Your task to perform on an android device: Open eBay Image 0: 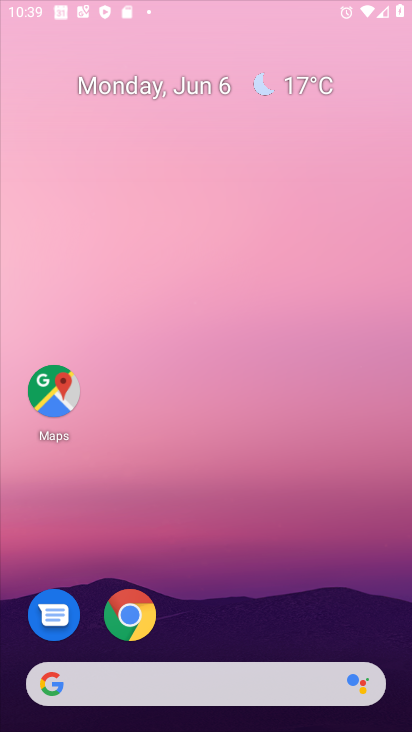
Step 0: press home button
Your task to perform on an android device: Open eBay Image 1: 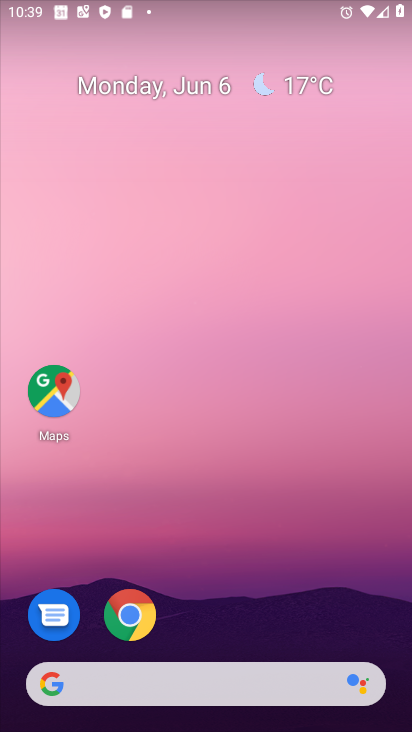
Step 1: press home button
Your task to perform on an android device: Open eBay Image 2: 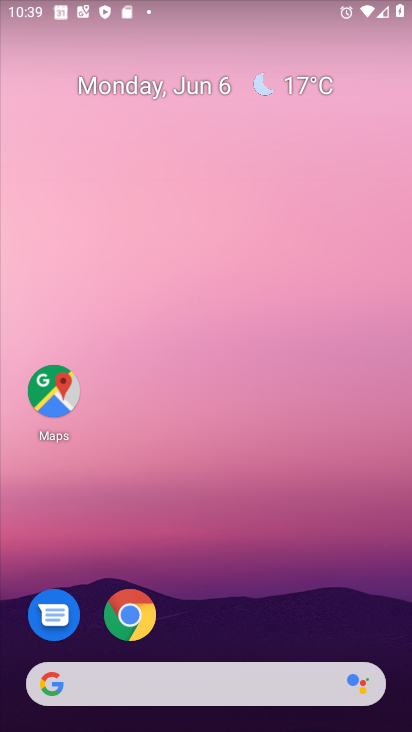
Step 2: click (126, 610)
Your task to perform on an android device: Open eBay Image 3: 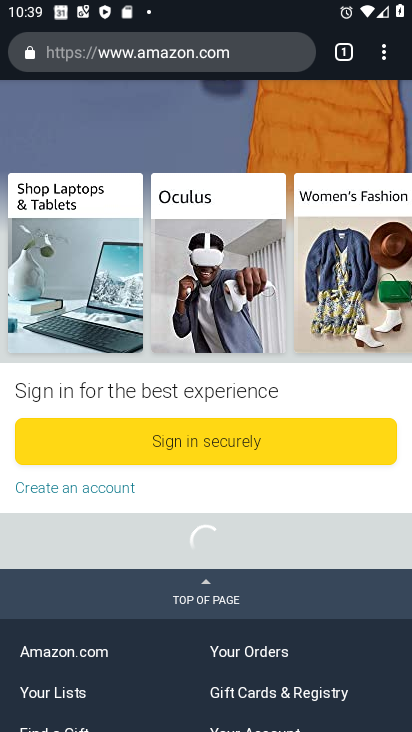
Step 3: click (339, 48)
Your task to perform on an android device: Open eBay Image 4: 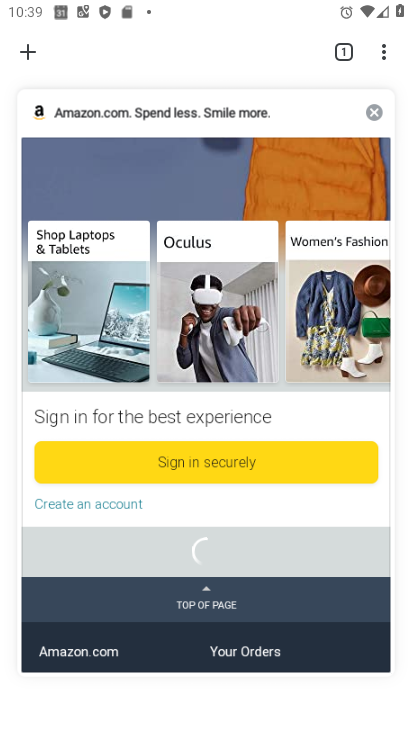
Step 4: click (369, 111)
Your task to perform on an android device: Open eBay Image 5: 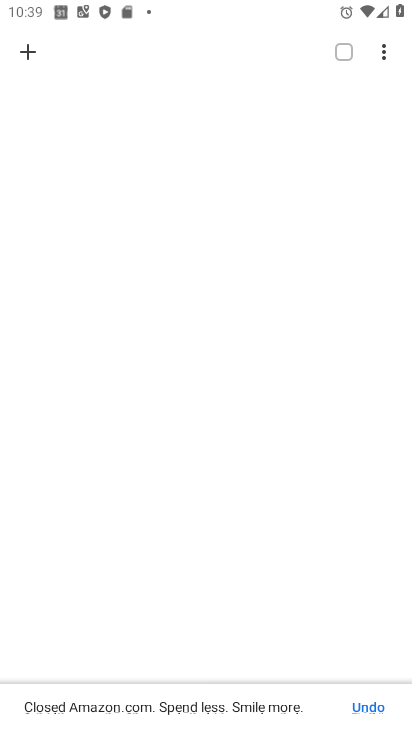
Step 5: click (28, 48)
Your task to perform on an android device: Open eBay Image 6: 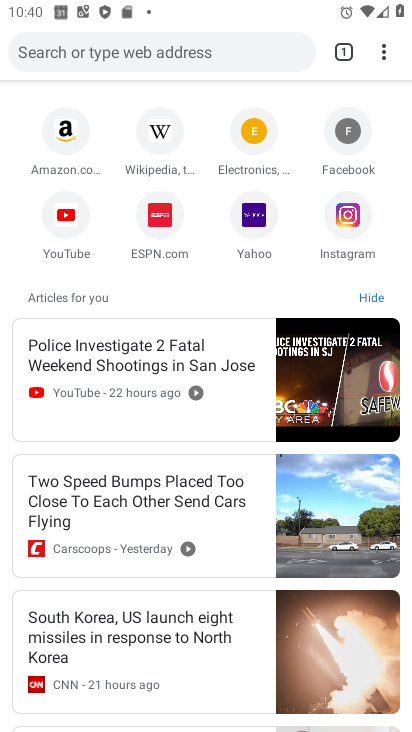
Step 6: click (121, 46)
Your task to perform on an android device: Open eBay Image 7: 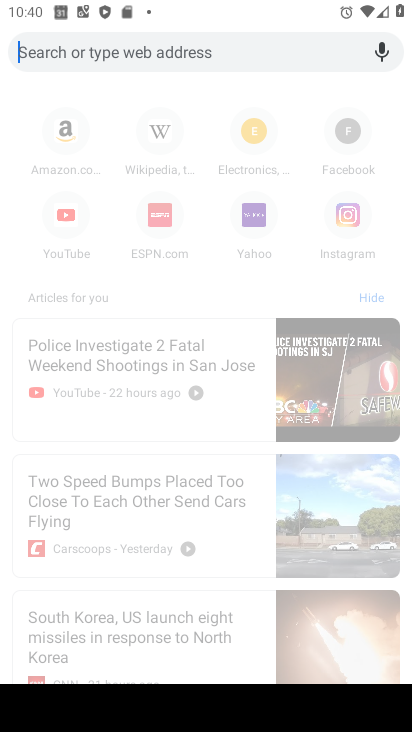
Step 7: type "ebay"
Your task to perform on an android device: Open eBay Image 8: 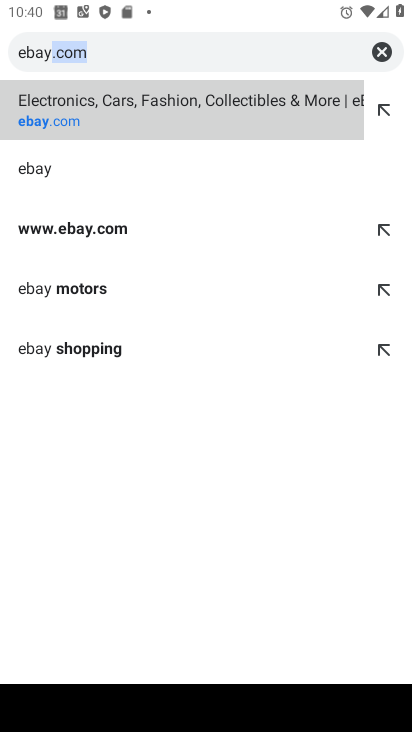
Step 8: click (111, 113)
Your task to perform on an android device: Open eBay Image 9: 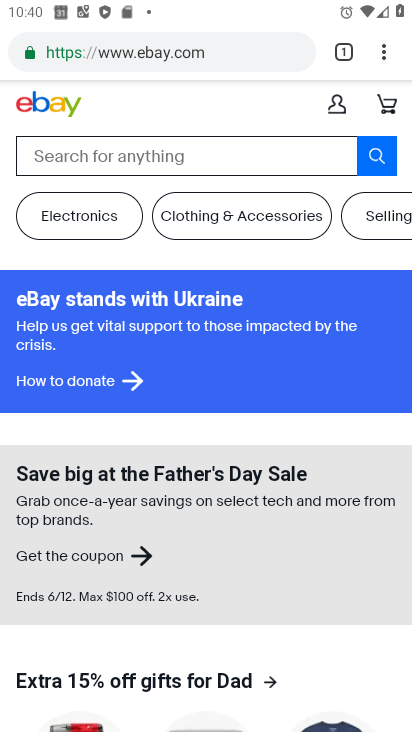
Step 9: task complete